Your task to perform on an android device: Open the calendar and show me this week's events Image 0: 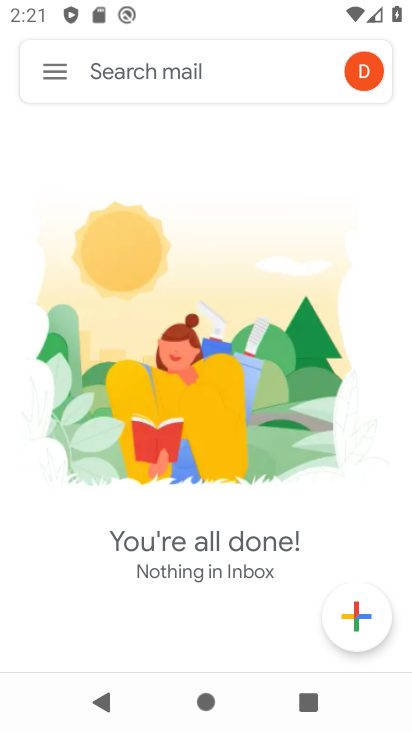
Step 0: press home button
Your task to perform on an android device: Open the calendar and show me this week's events Image 1: 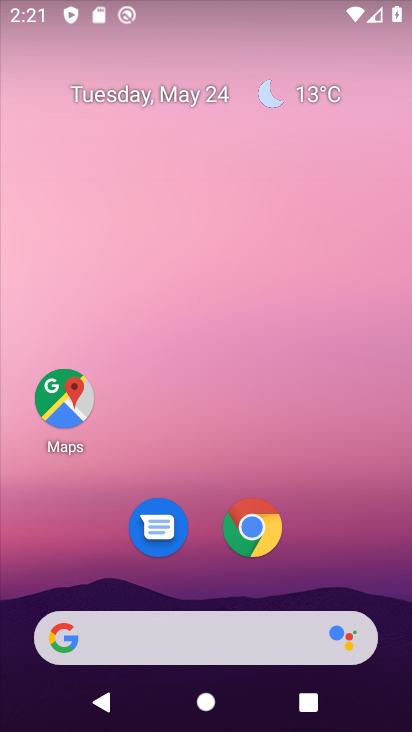
Step 1: drag from (302, 558) to (314, 4)
Your task to perform on an android device: Open the calendar and show me this week's events Image 2: 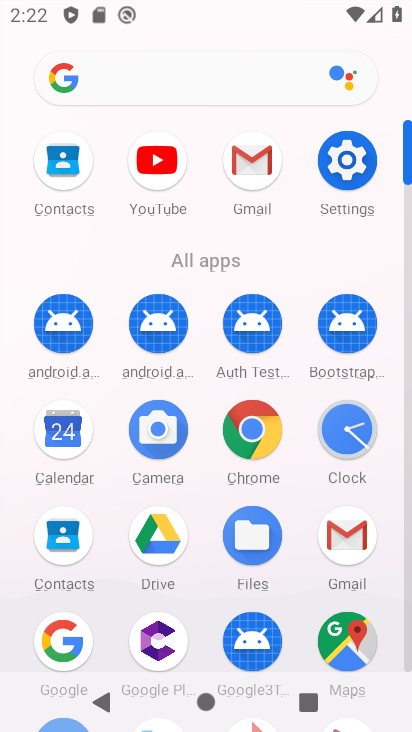
Step 2: click (56, 437)
Your task to perform on an android device: Open the calendar and show me this week's events Image 3: 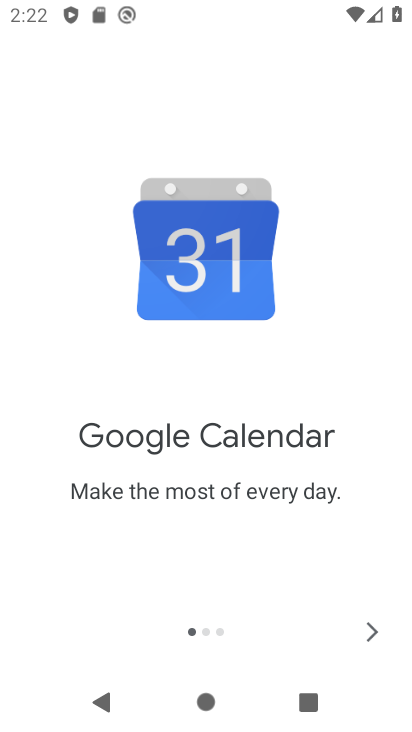
Step 3: click (368, 641)
Your task to perform on an android device: Open the calendar and show me this week's events Image 4: 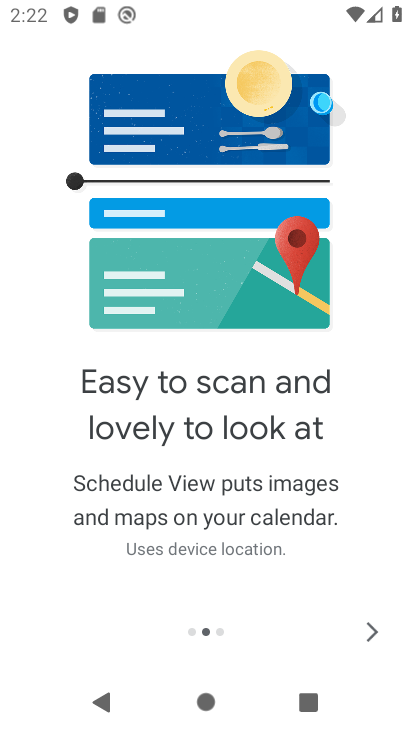
Step 4: click (366, 632)
Your task to perform on an android device: Open the calendar and show me this week's events Image 5: 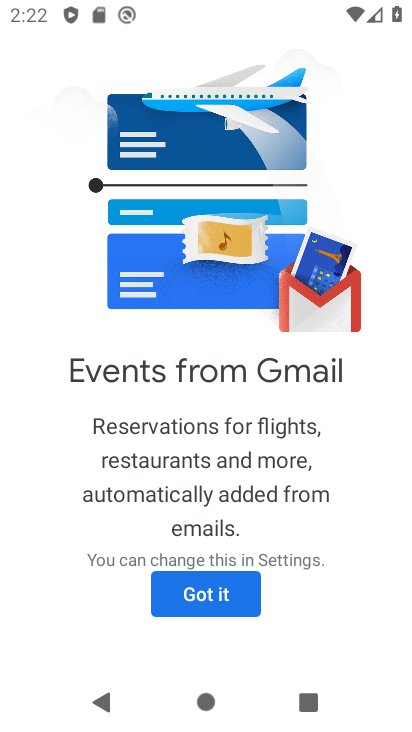
Step 5: click (197, 585)
Your task to perform on an android device: Open the calendar and show me this week's events Image 6: 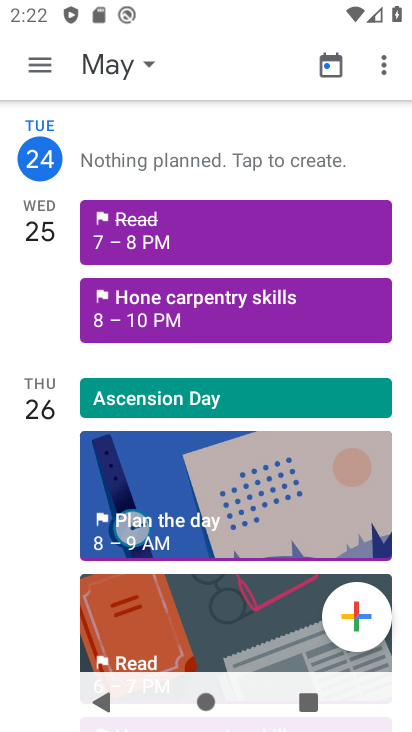
Step 6: click (99, 67)
Your task to perform on an android device: Open the calendar and show me this week's events Image 7: 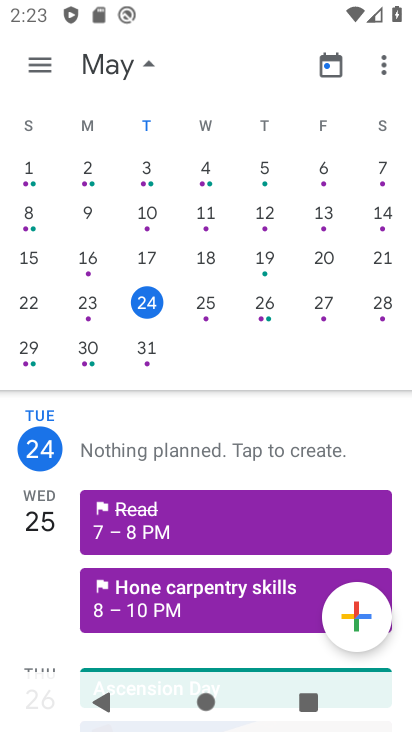
Step 7: click (146, 304)
Your task to perform on an android device: Open the calendar and show me this week's events Image 8: 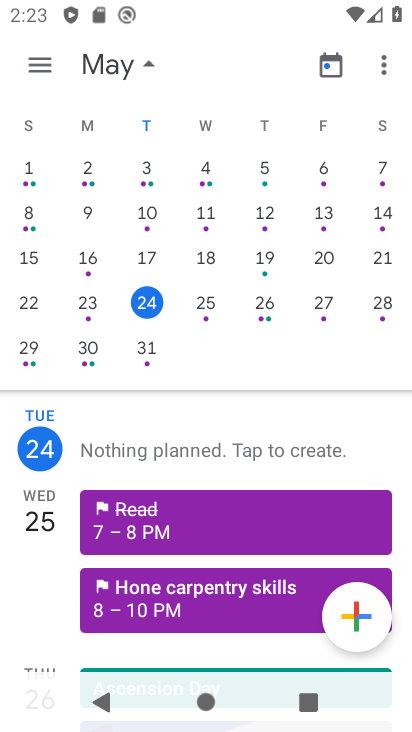
Step 8: task complete